Your task to perform on an android device: visit the assistant section in the google photos Image 0: 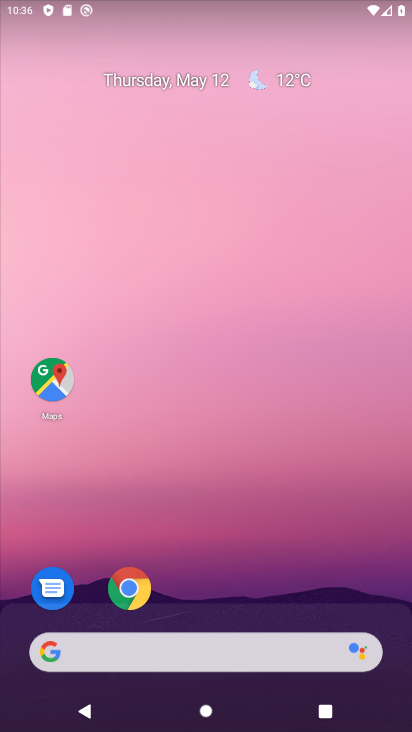
Step 0: drag from (293, 595) to (232, 73)
Your task to perform on an android device: visit the assistant section in the google photos Image 1: 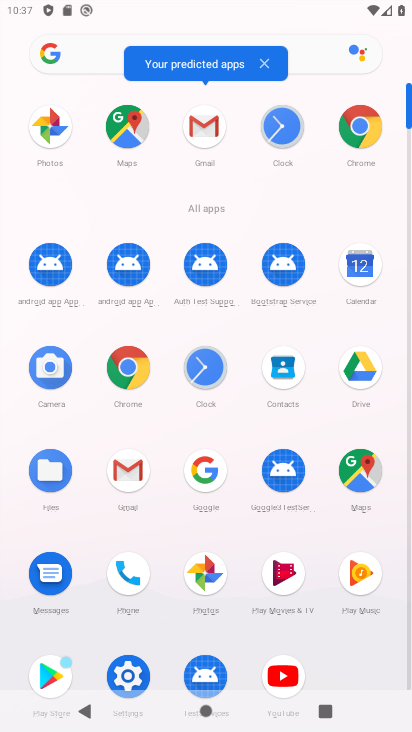
Step 1: click (205, 573)
Your task to perform on an android device: visit the assistant section in the google photos Image 2: 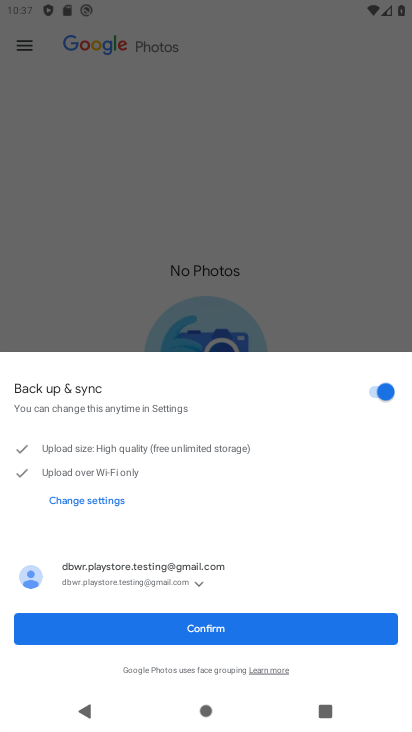
Step 2: click (207, 625)
Your task to perform on an android device: visit the assistant section in the google photos Image 3: 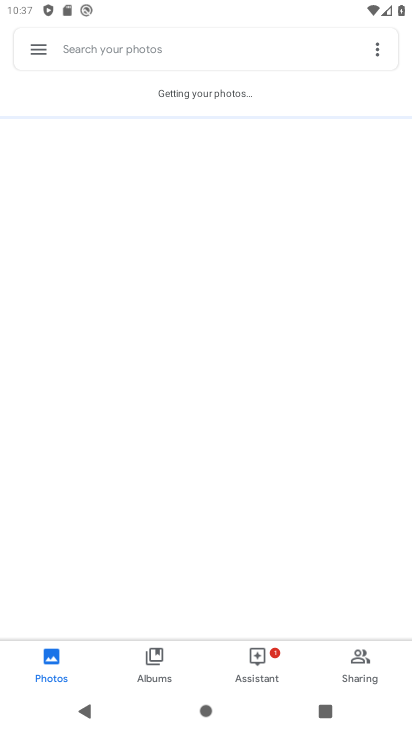
Step 3: click (259, 662)
Your task to perform on an android device: visit the assistant section in the google photos Image 4: 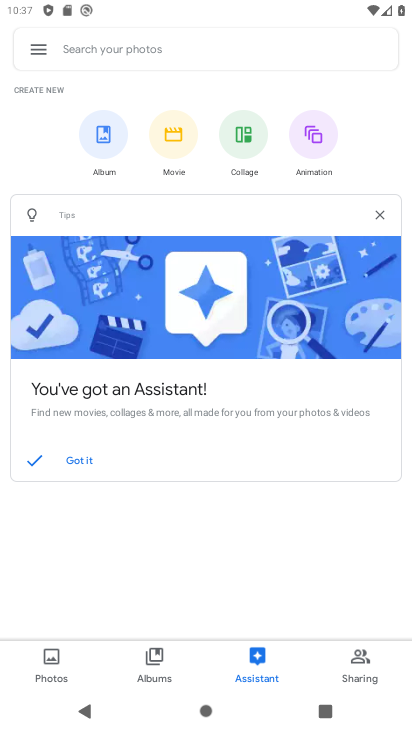
Step 4: task complete